Your task to perform on an android device: Open calendar and show me the first week of next month Image 0: 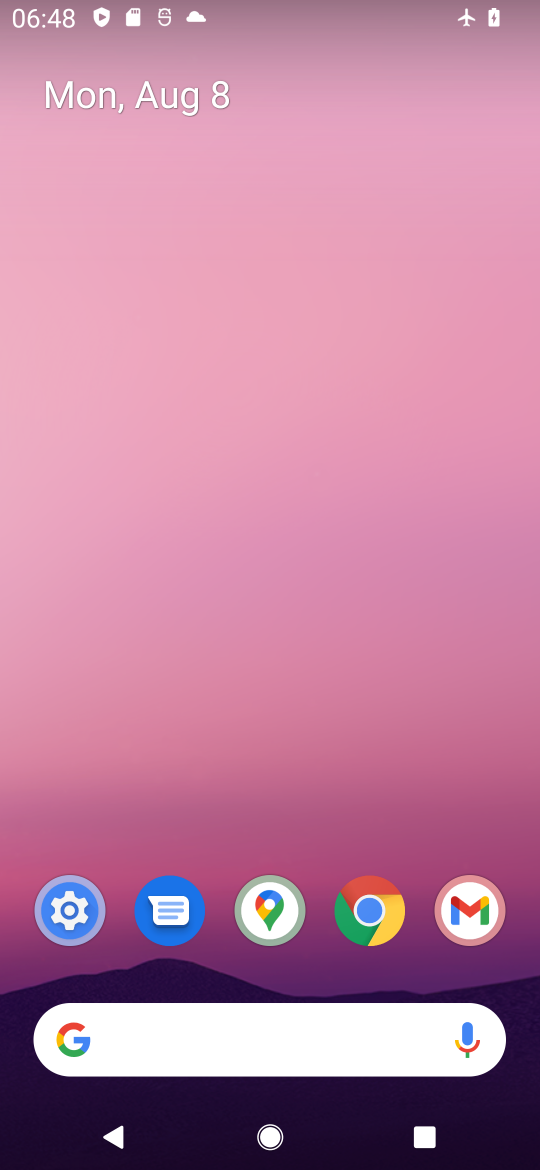
Step 0: drag from (183, 1054) to (405, 255)
Your task to perform on an android device: Open calendar and show me the first week of next month Image 1: 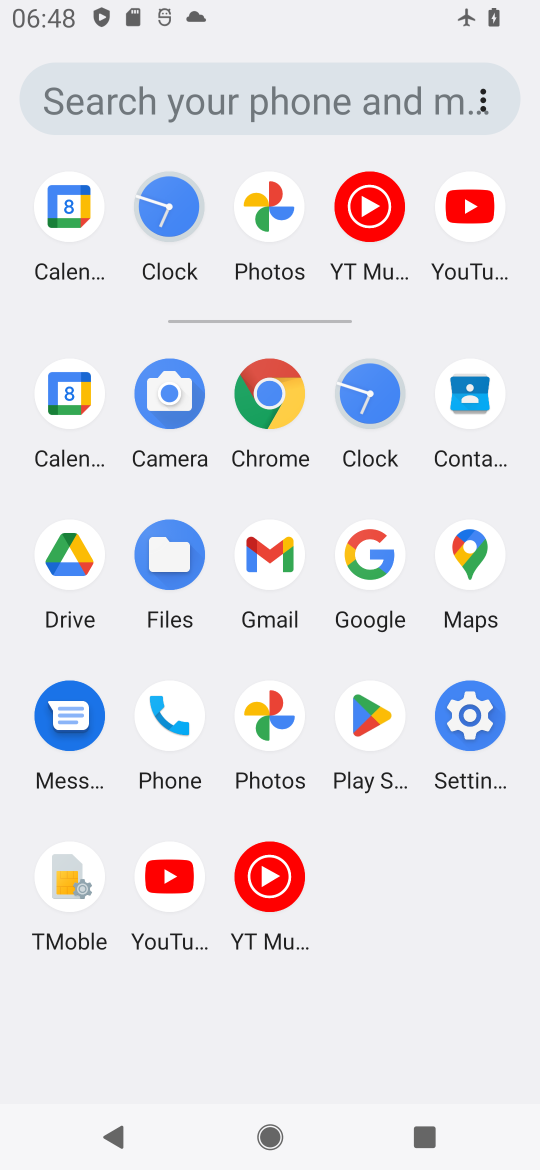
Step 1: click (68, 392)
Your task to perform on an android device: Open calendar and show me the first week of next month Image 2: 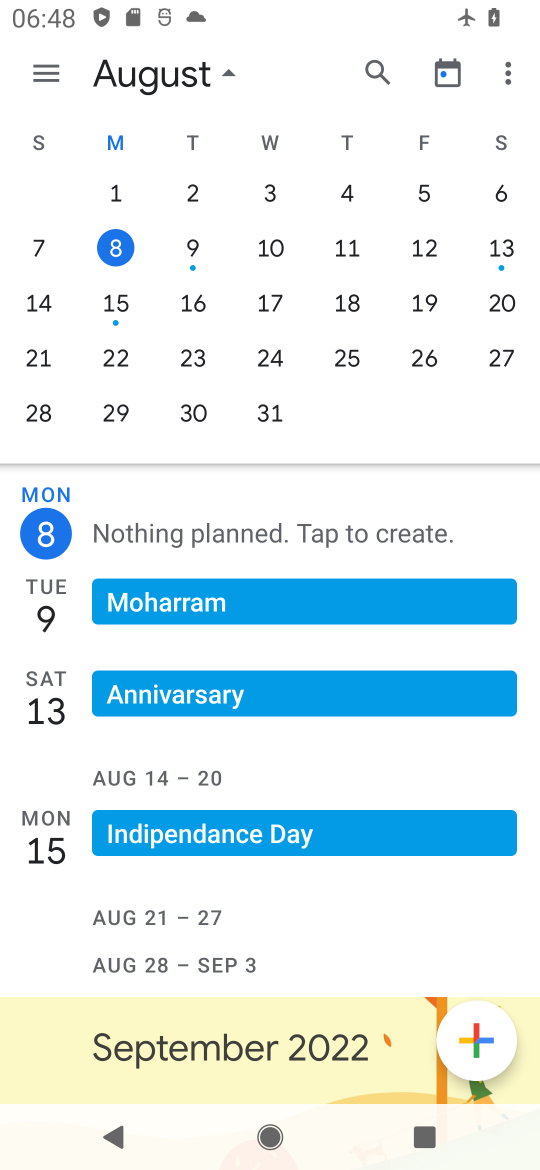
Step 2: drag from (474, 300) to (0, 325)
Your task to perform on an android device: Open calendar and show me the first week of next month Image 3: 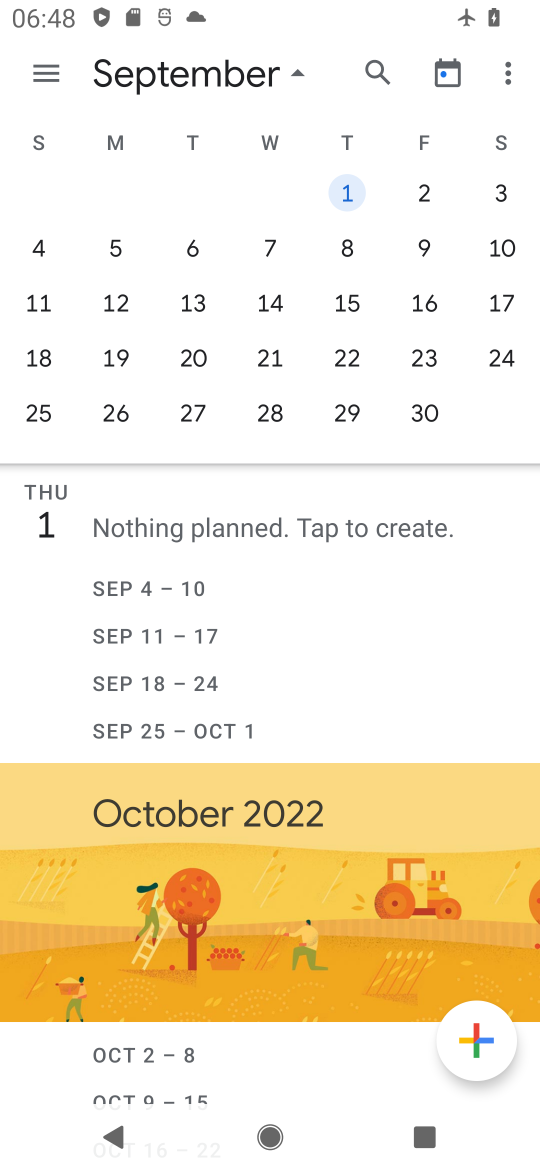
Step 3: click (129, 355)
Your task to perform on an android device: Open calendar and show me the first week of next month Image 4: 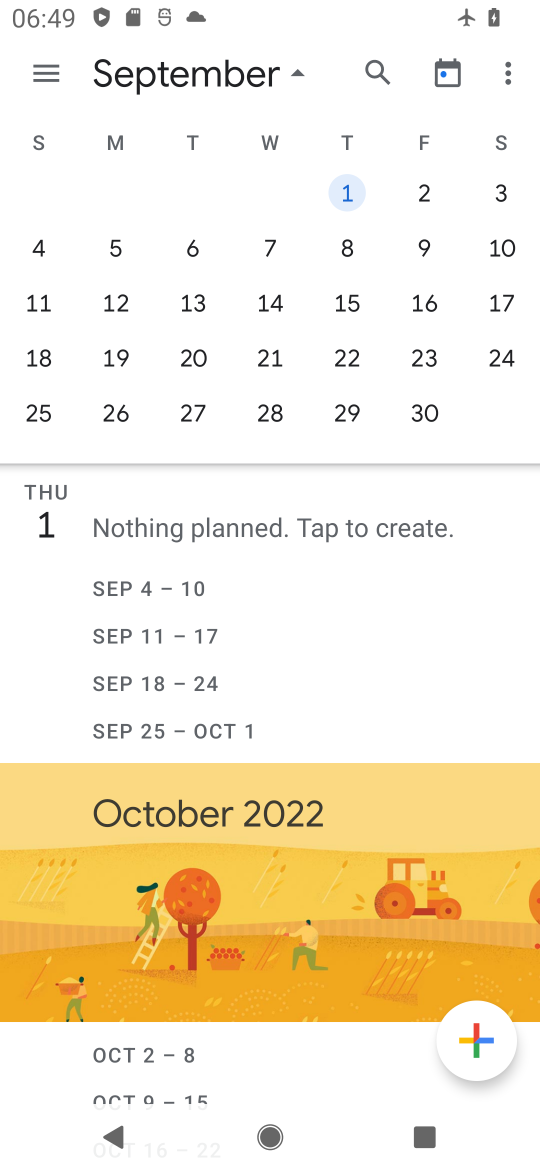
Step 4: click (129, 355)
Your task to perform on an android device: Open calendar and show me the first week of next month Image 5: 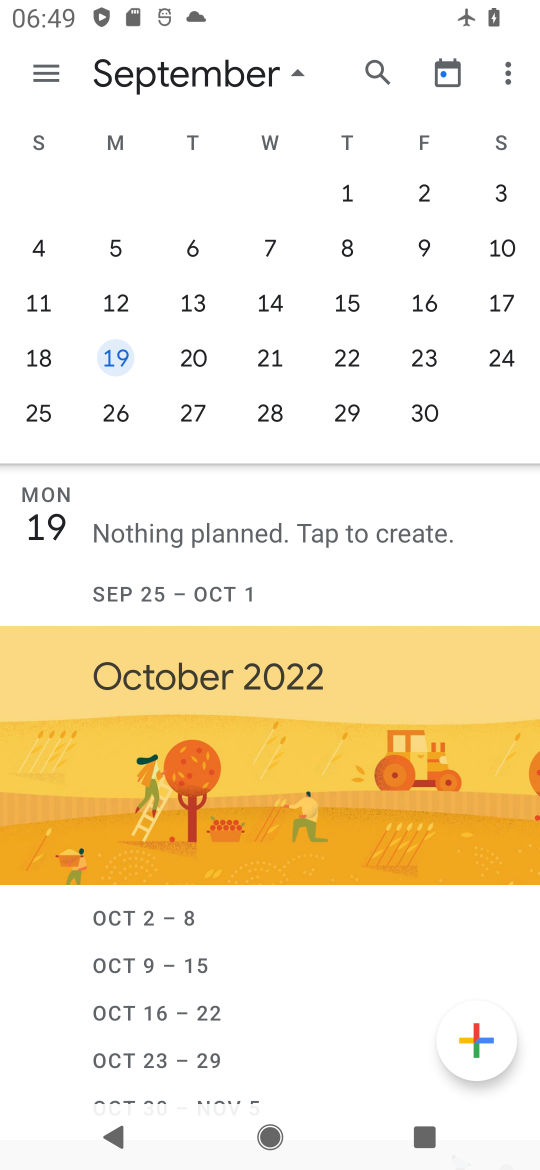
Step 5: click (44, 68)
Your task to perform on an android device: Open calendar and show me the first week of next month Image 6: 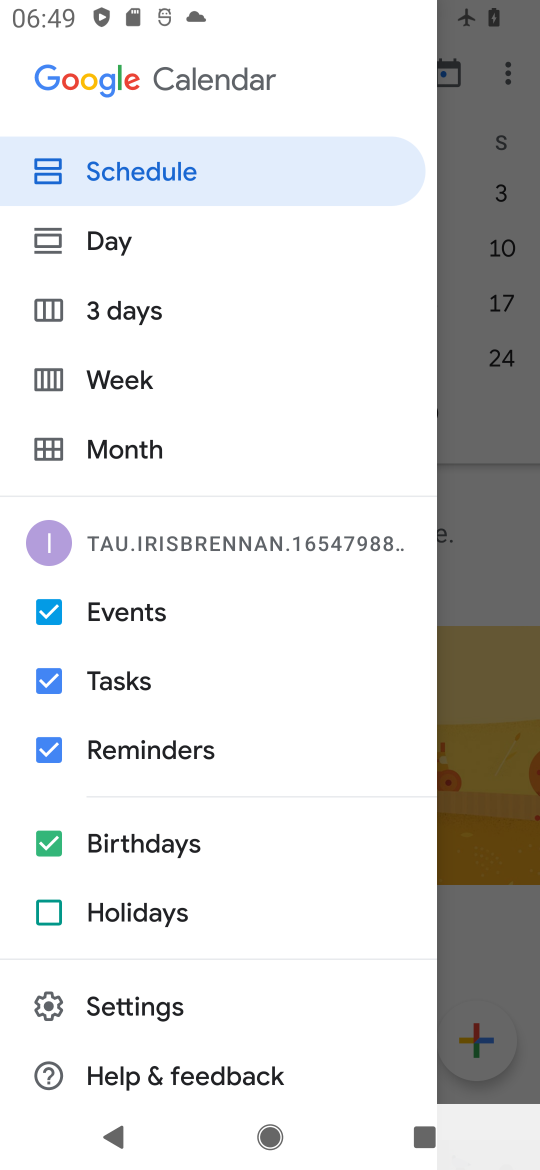
Step 6: click (117, 378)
Your task to perform on an android device: Open calendar and show me the first week of next month Image 7: 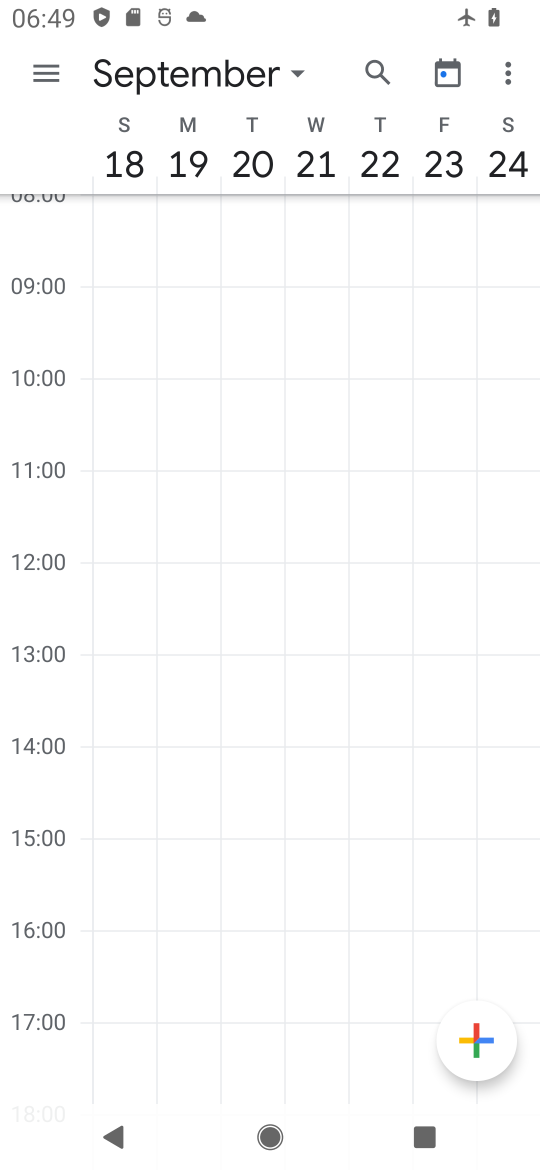
Step 7: task complete